Your task to perform on an android device: allow cookies in the chrome app Image 0: 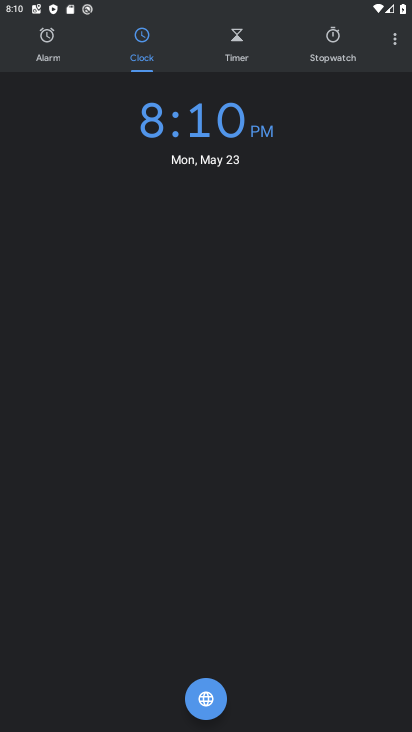
Step 0: press home button
Your task to perform on an android device: allow cookies in the chrome app Image 1: 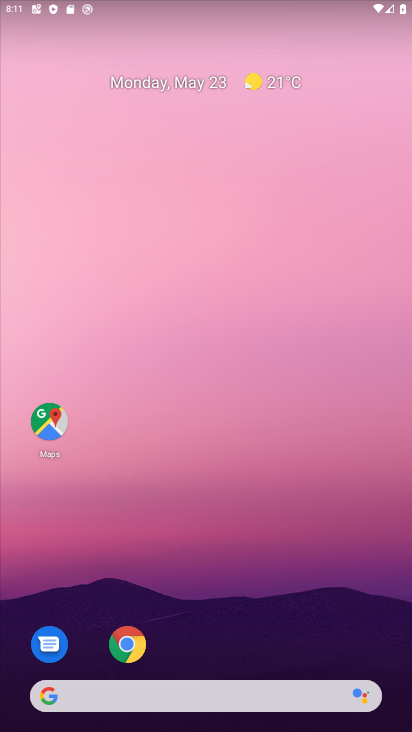
Step 1: click (135, 647)
Your task to perform on an android device: allow cookies in the chrome app Image 2: 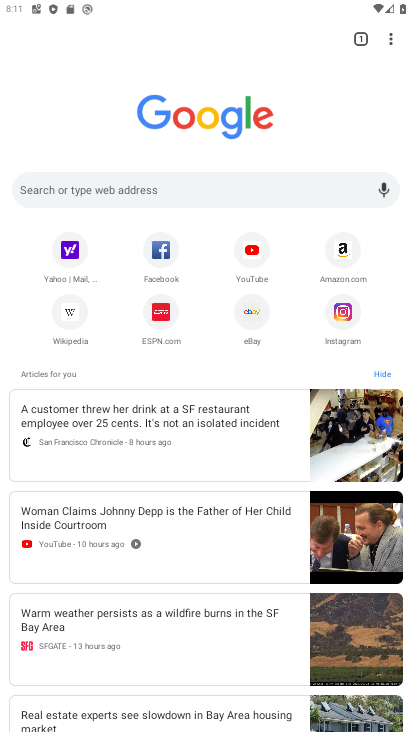
Step 2: click (387, 38)
Your task to perform on an android device: allow cookies in the chrome app Image 3: 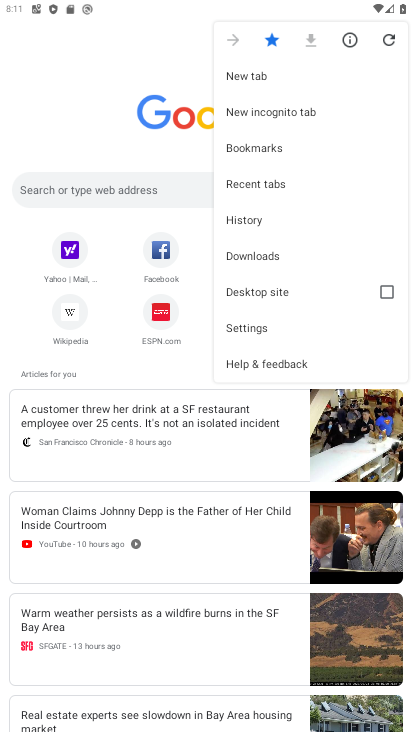
Step 3: click (273, 331)
Your task to perform on an android device: allow cookies in the chrome app Image 4: 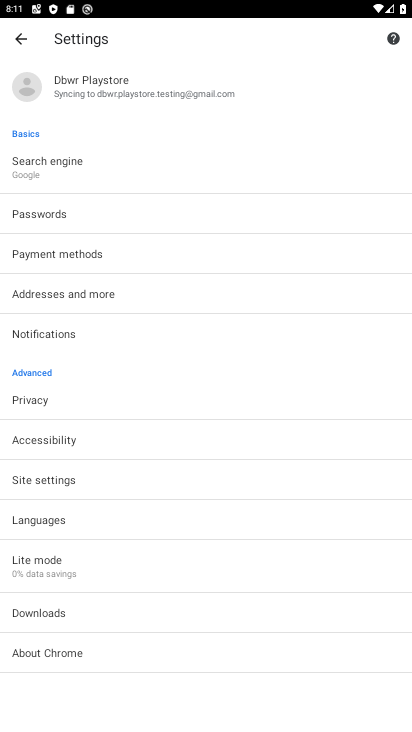
Step 4: click (96, 479)
Your task to perform on an android device: allow cookies in the chrome app Image 5: 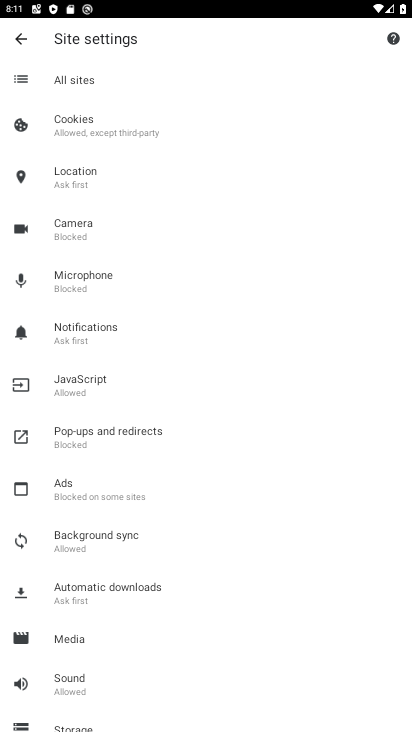
Step 5: click (99, 130)
Your task to perform on an android device: allow cookies in the chrome app Image 6: 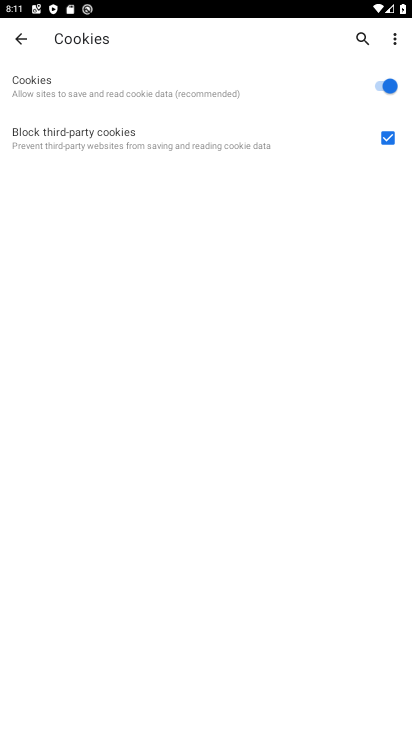
Step 6: task complete